Your task to perform on an android device: snooze an email in the gmail app Image 0: 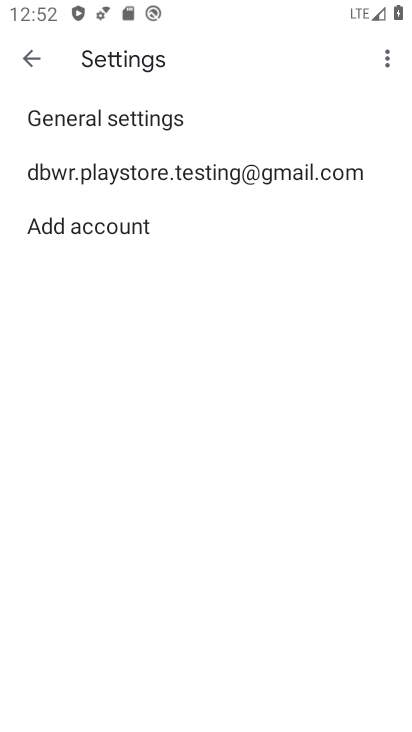
Step 0: press home button
Your task to perform on an android device: snooze an email in the gmail app Image 1: 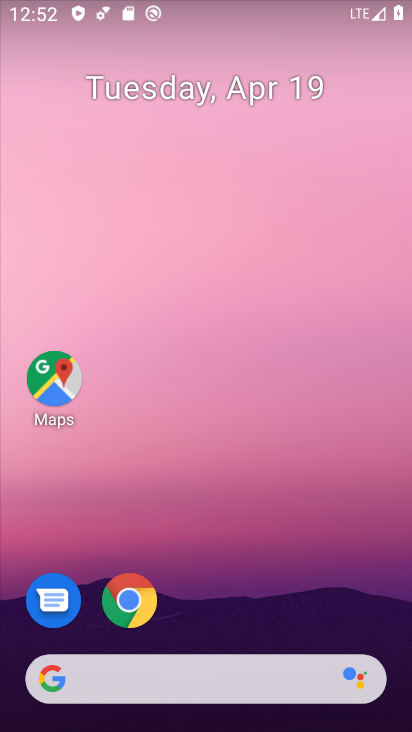
Step 1: drag from (232, 641) to (218, 6)
Your task to perform on an android device: snooze an email in the gmail app Image 2: 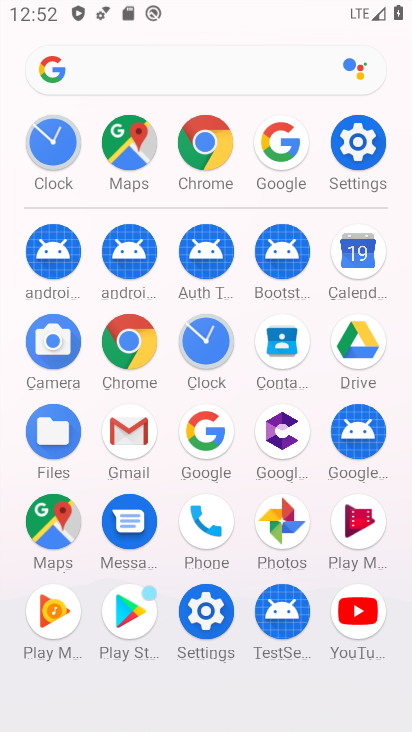
Step 2: click (116, 441)
Your task to perform on an android device: snooze an email in the gmail app Image 3: 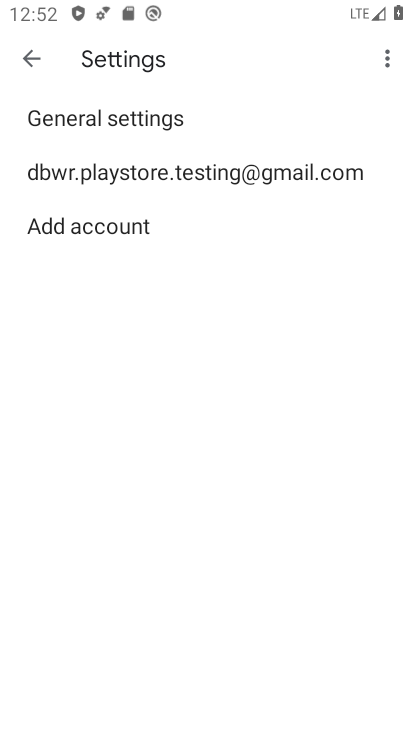
Step 3: click (28, 64)
Your task to perform on an android device: snooze an email in the gmail app Image 4: 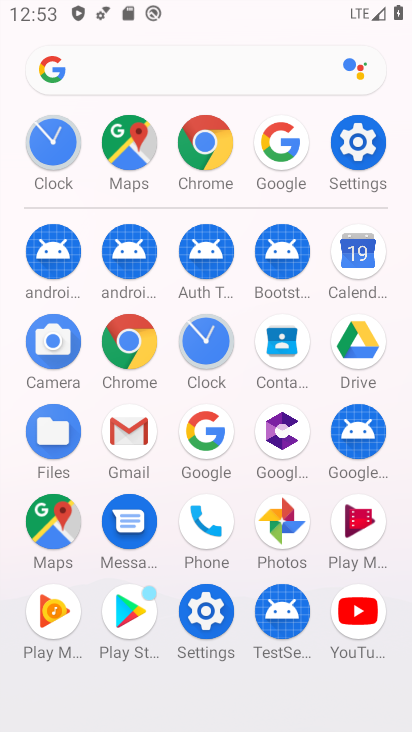
Step 4: click (143, 432)
Your task to perform on an android device: snooze an email in the gmail app Image 5: 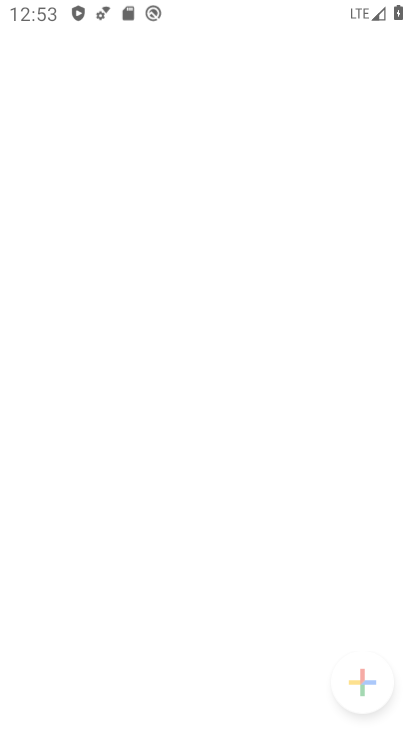
Step 5: click (143, 432)
Your task to perform on an android device: snooze an email in the gmail app Image 6: 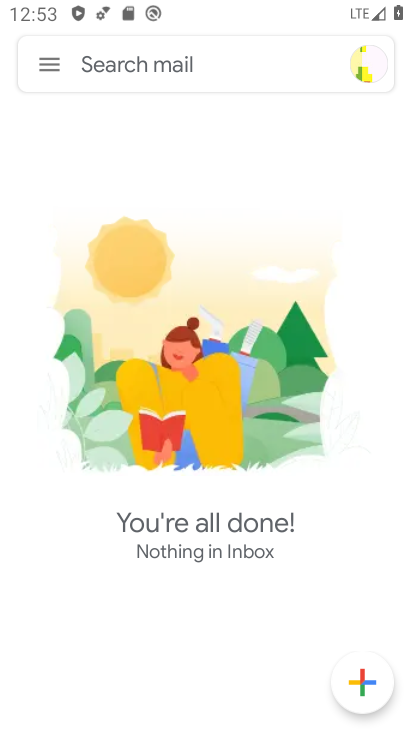
Step 6: task complete